Your task to perform on an android device: toggle notifications settings in the gmail app Image 0: 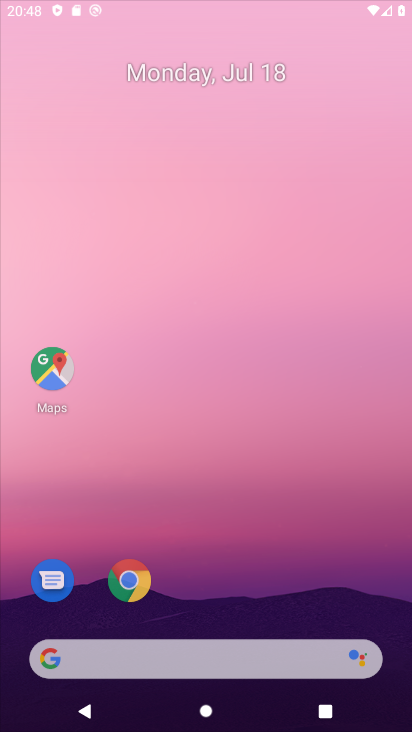
Step 0: press home button
Your task to perform on an android device: toggle notifications settings in the gmail app Image 1: 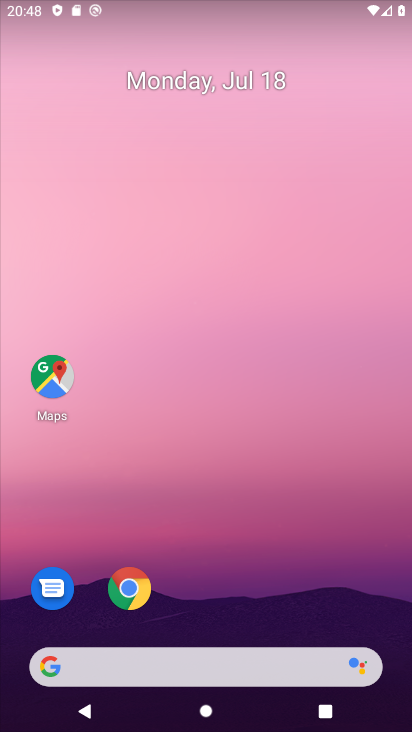
Step 1: drag from (209, 668) to (321, 94)
Your task to perform on an android device: toggle notifications settings in the gmail app Image 2: 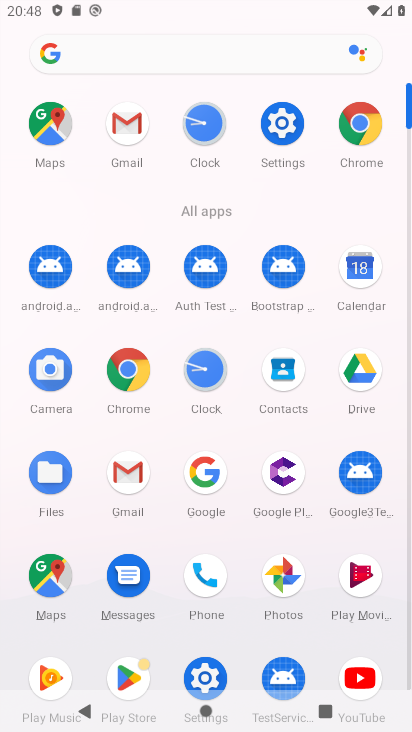
Step 2: click (127, 132)
Your task to perform on an android device: toggle notifications settings in the gmail app Image 3: 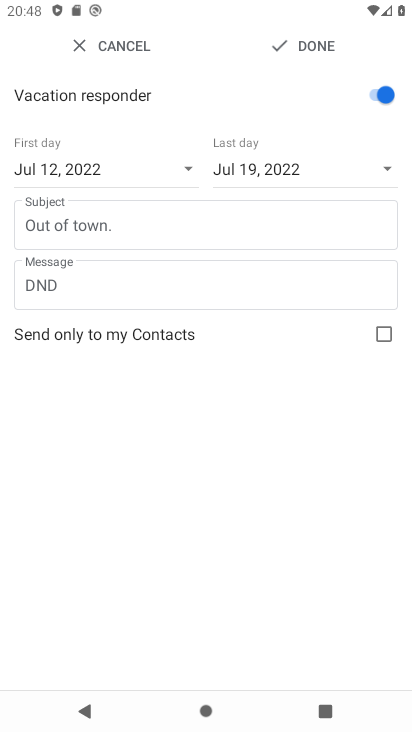
Step 3: click (80, 43)
Your task to perform on an android device: toggle notifications settings in the gmail app Image 4: 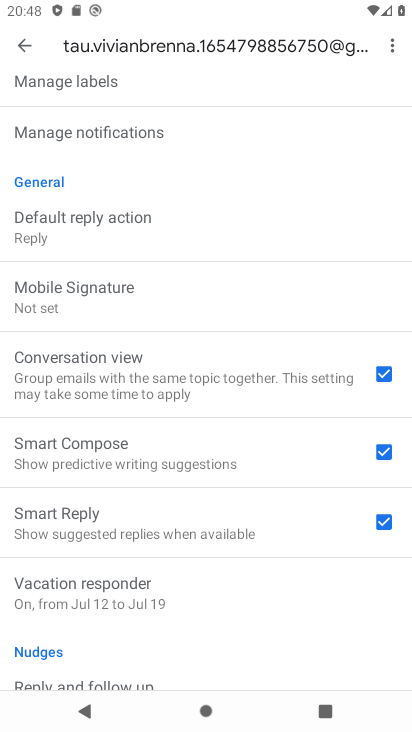
Step 4: drag from (227, 137) to (204, 552)
Your task to perform on an android device: toggle notifications settings in the gmail app Image 5: 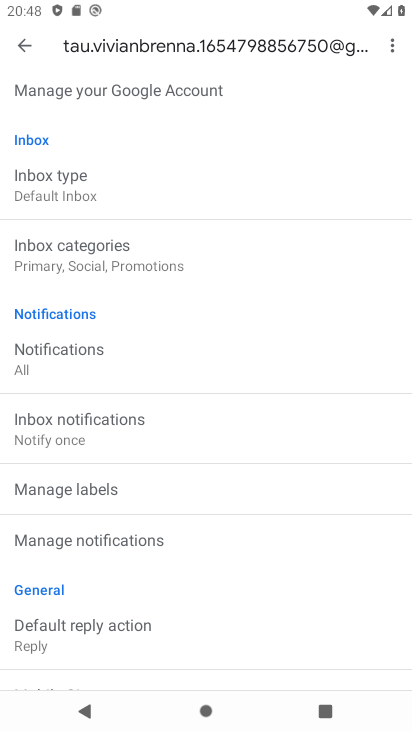
Step 5: click (69, 362)
Your task to perform on an android device: toggle notifications settings in the gmail app Image 6: 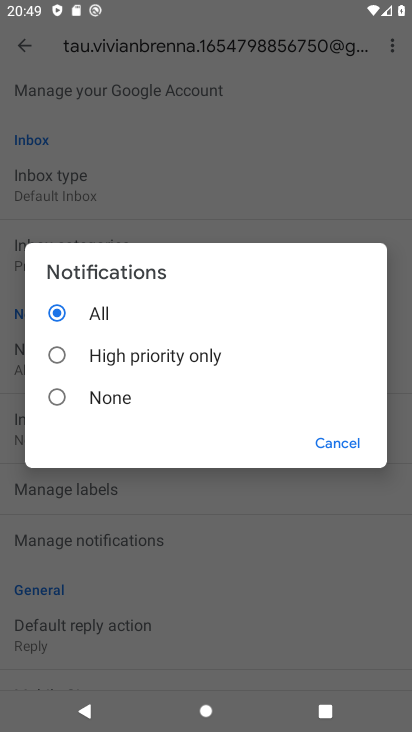
Step 6: click (55, 401)
Your task to perform on an android device: toggle notifications settings in the gmail app Image 7: 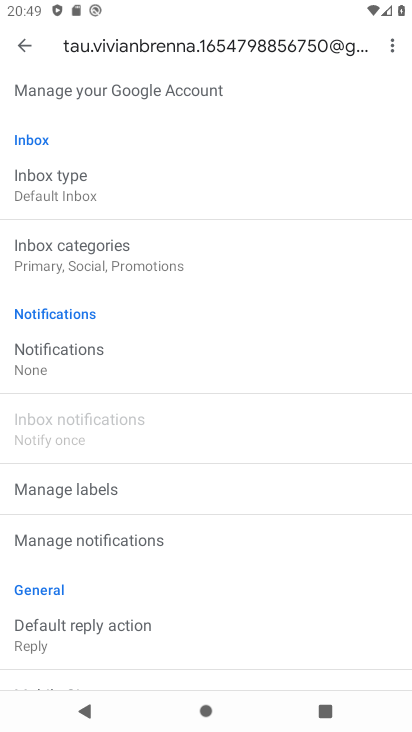
Step 7: task complete